Your task to perform on an android device: turn smart compose on in the gmail app Image 0: 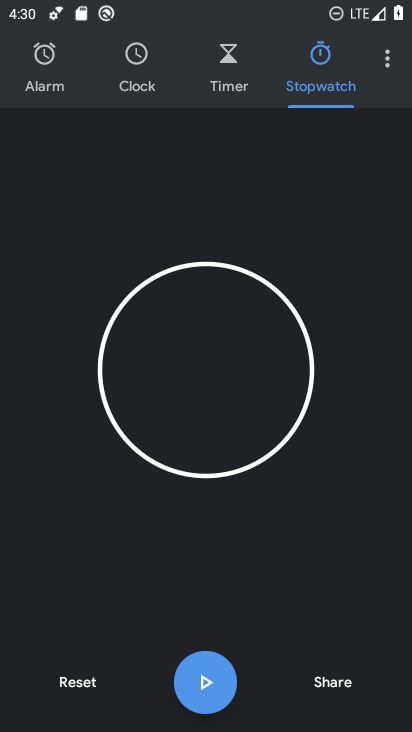
Step 0: press back button
Your task to perform on an android device: turn smart compose on in the gmail app Image 1: 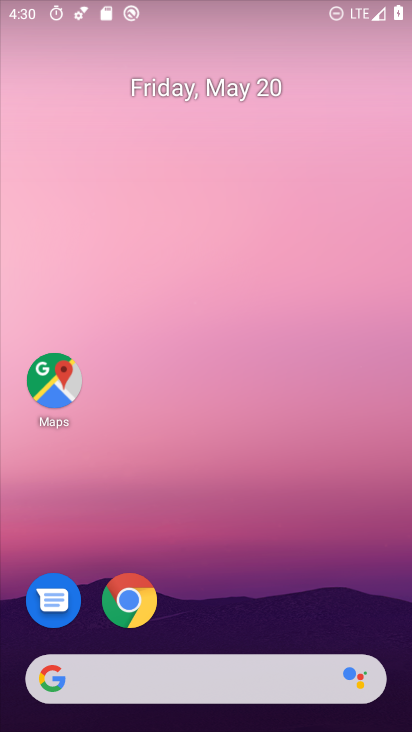
Step 1: press home button
Your task to perform on an android device: turn smart compose on in the gmail app Image 2: 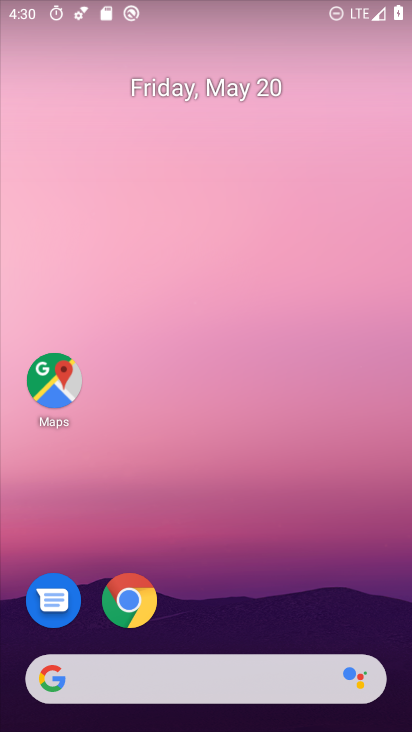
Step 2: drag from (304, 515) to (315, 121)
Your task to perform on an android device: turn smart compose on in the gmail app Image 3: 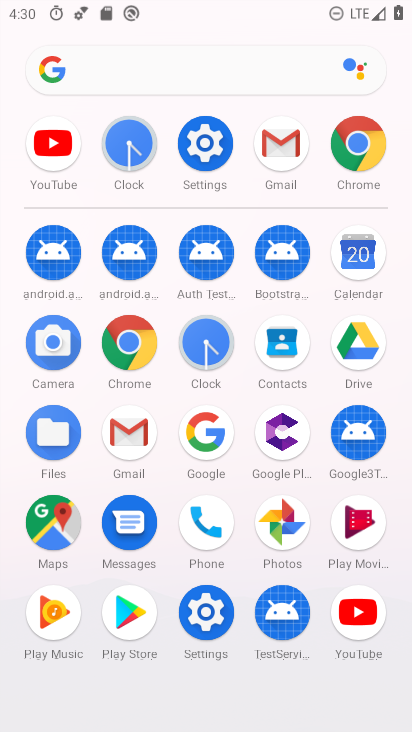
Step 3: click (119, 415)
Your task to perform on an android device: turn smart compose on in the gmail app Image 4: 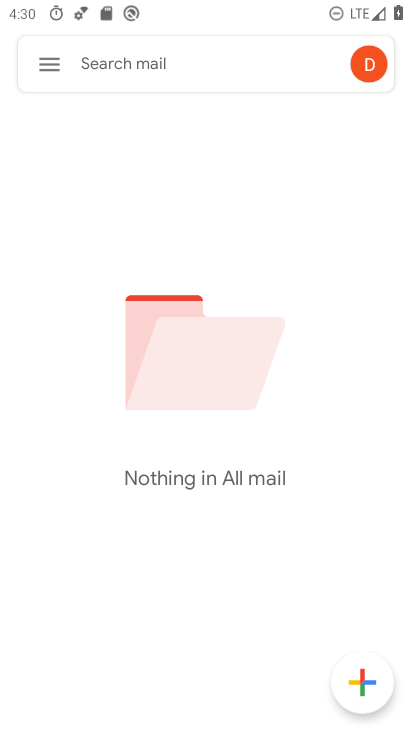
Step 4: click (47, 57)
Your task to perform on an android device: turn smart compose on in the gmail app Image 5: 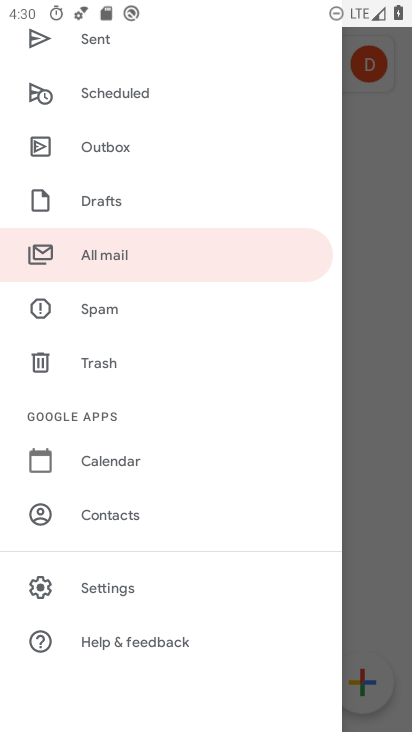
Step 5: click (111, 571)
Your task to perform on an android device: turn smart compose on in the gmail app Image 6: 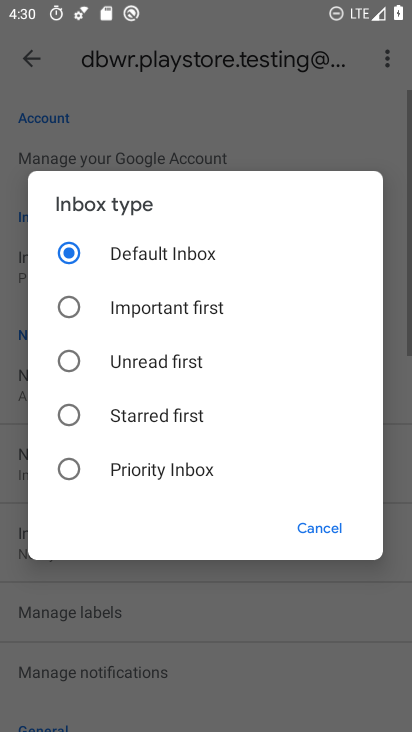
Step 6: click (302, 525)
Your task to perform on an android device: turn smart compose on in the gmail app Image 7: 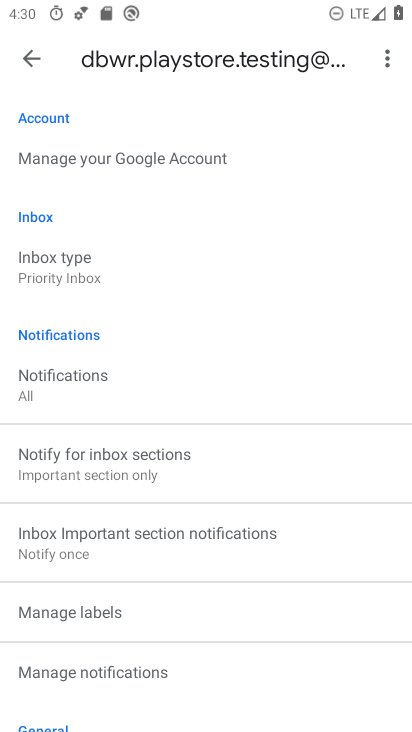
Step 7: task complete